Your task to perform on an android device: turn on sleep mode Image 0: 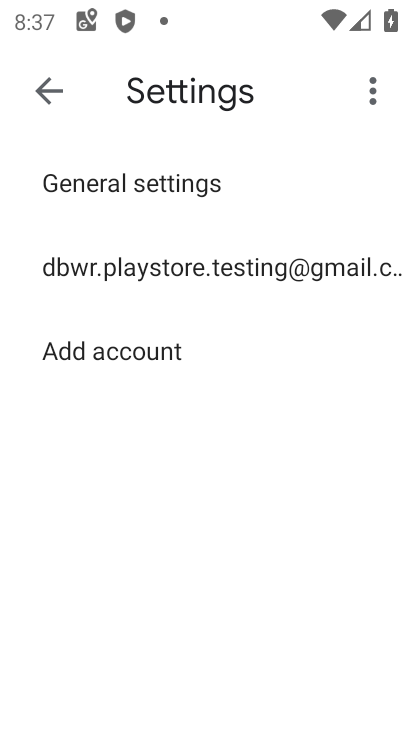
Step 0: press home button
Your task to perform on an android device: turn on sleep mode Image 1: 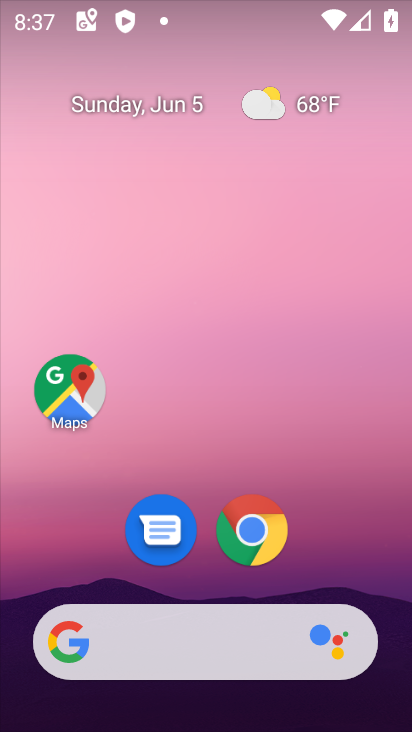
Step 1: drag from (391, 621) to (355, 37)
Your task to perform on an android device: turn on sleep mode Image 2: 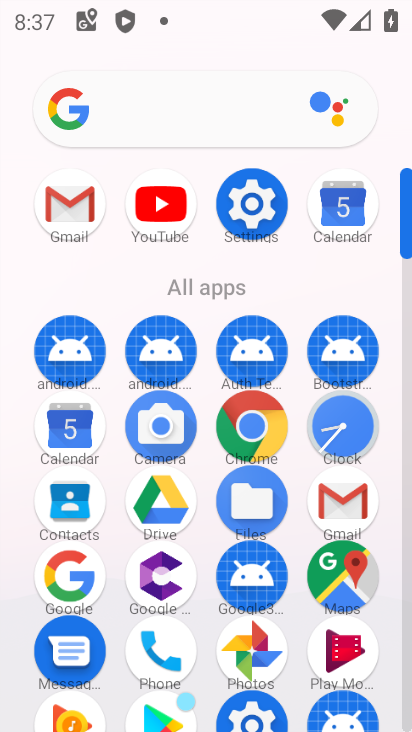
Step 2: click (405, 686)
Your task to perform on an android device: turn on sleep mode Image 3: 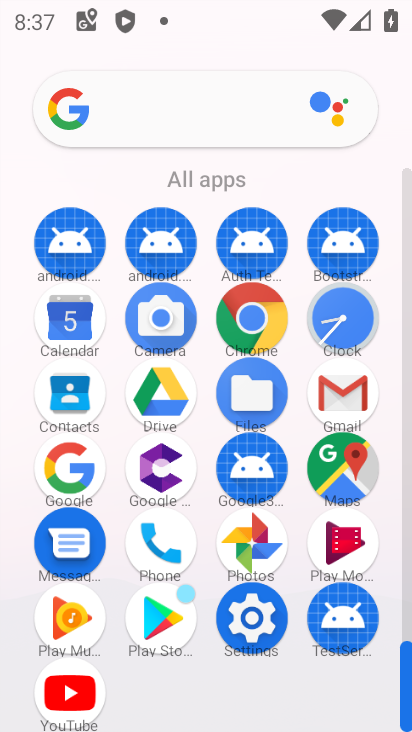
Step 3: click (251, 614)
Your task to perform on an android device: turn on sleep mode Image 4: 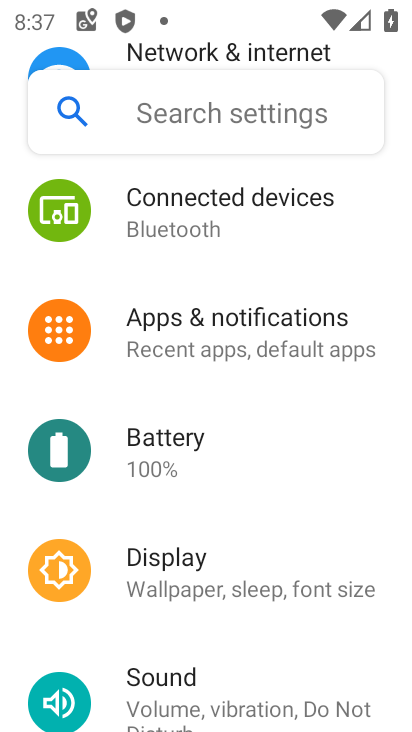
Step 4: click (223, 564)
Your task to perform on an android device: turn on sleep mode Image 5: 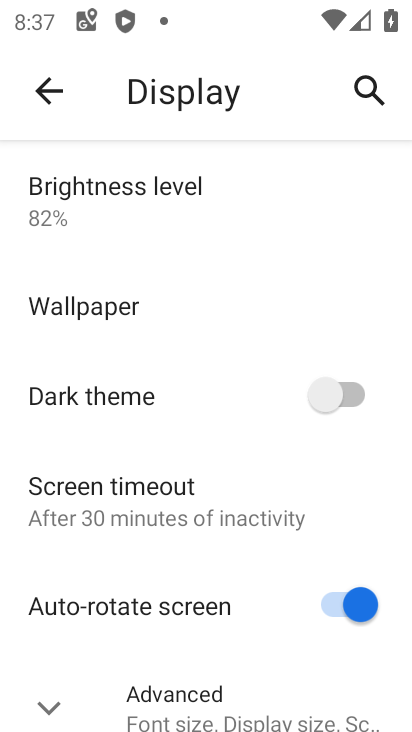
Step 5: drag from (164, 649) to (184, 230)
Your task to perform on an android device: turn on sleep mode Image 6: 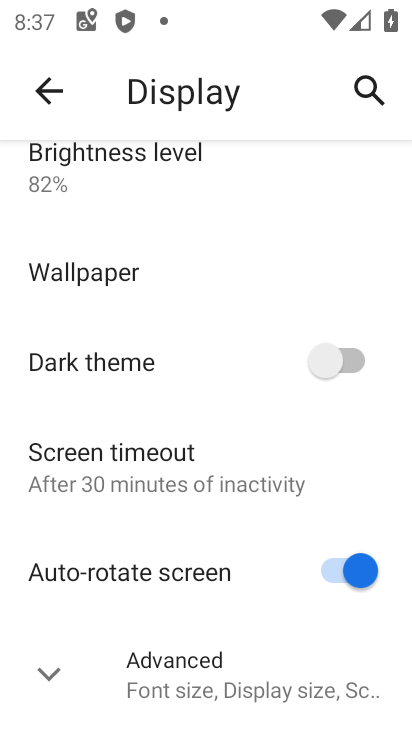
Step 6: click (44, 672)
Your task to perform on an android device: turn on sleep mode Image 7: 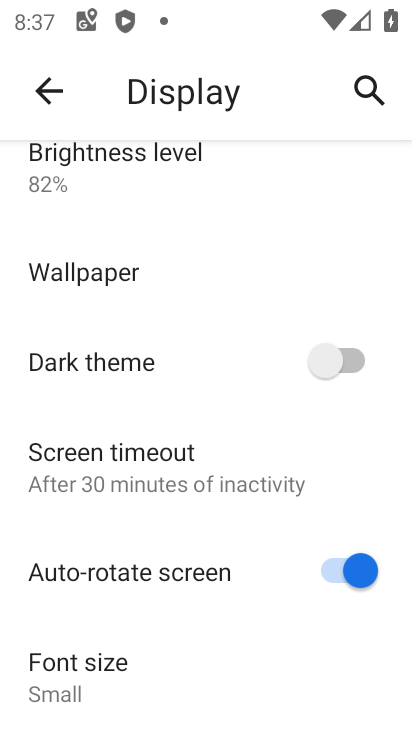
Step 7: task complete